Your task to perform on an android device: open a bookmark in the chrome app Image 0: 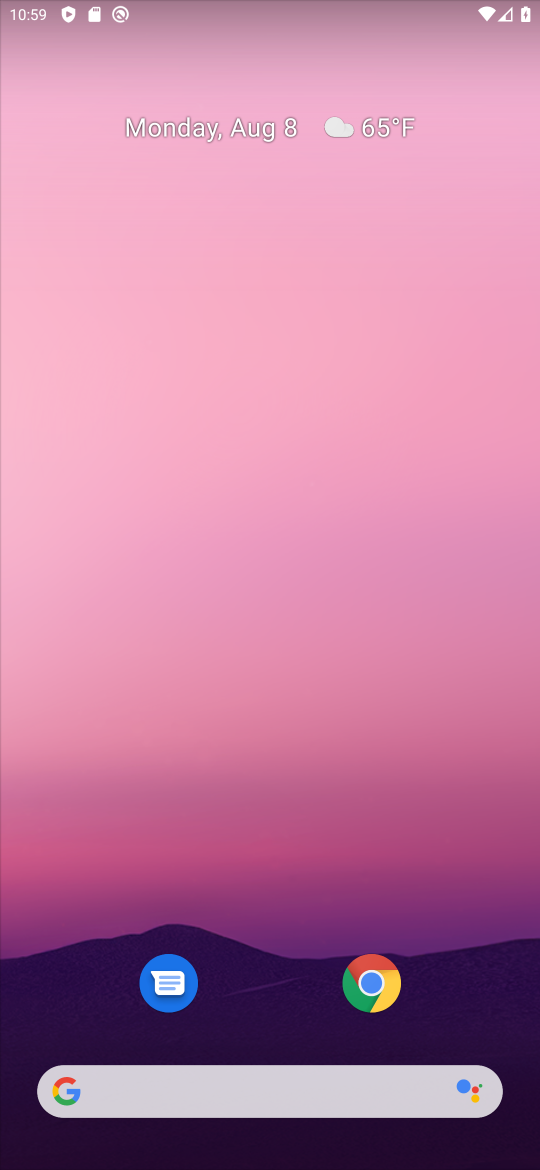
Step 0: task complete